Your task to perform on an android device: Open the phone app and click the voicemail tab. Image 0: 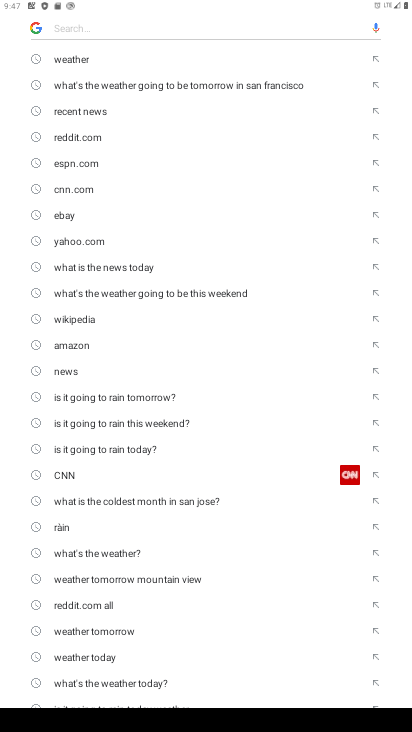
Step 0: press home button
Your task to perform on an android device: Open the phone app and click the voicemail tab. Image 1: 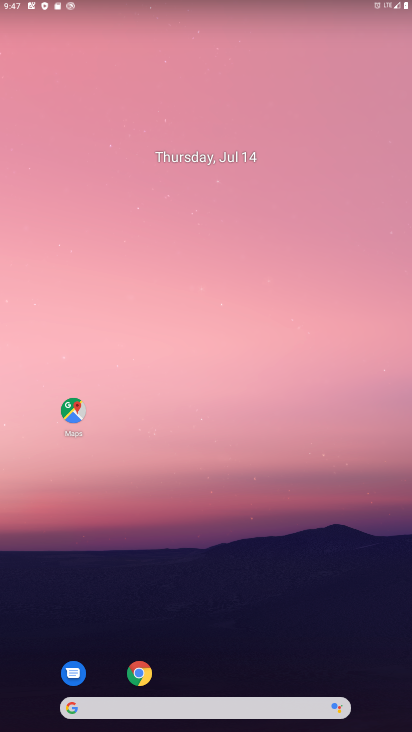
Step 1: drag from (183, 712) to (237, 296)
Your task to perform on an android device: Open the phone app and click the voicemail tab. Image 2: 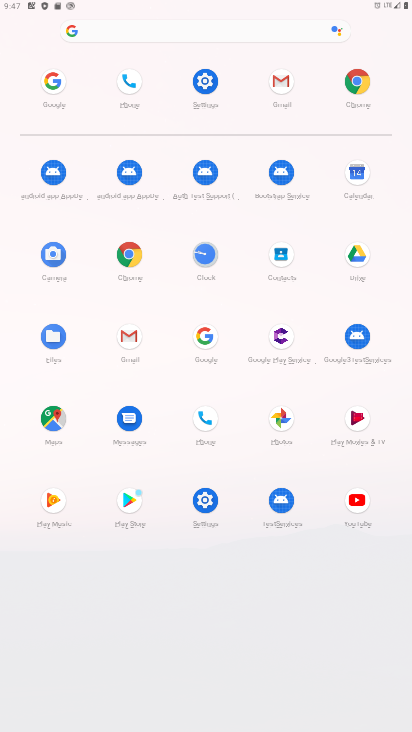
Step 2: click (128, 82)
Your task to perform on an android device: Open the phone app and click the voicemail tab. Image 3: 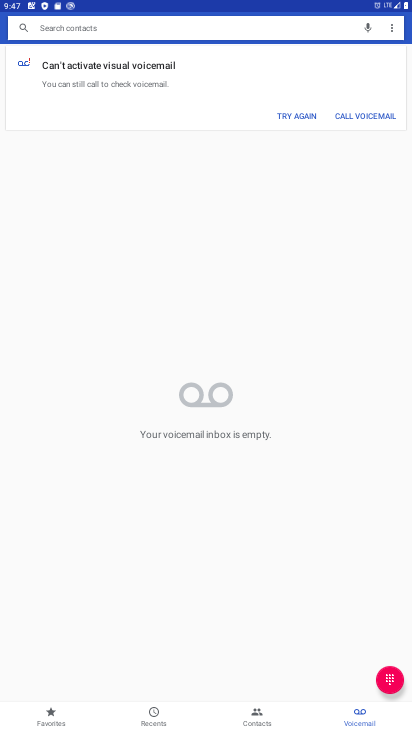
Step 3: task complete